Your task to perform on an android device: toggle data saver in the chrome app Image 0: 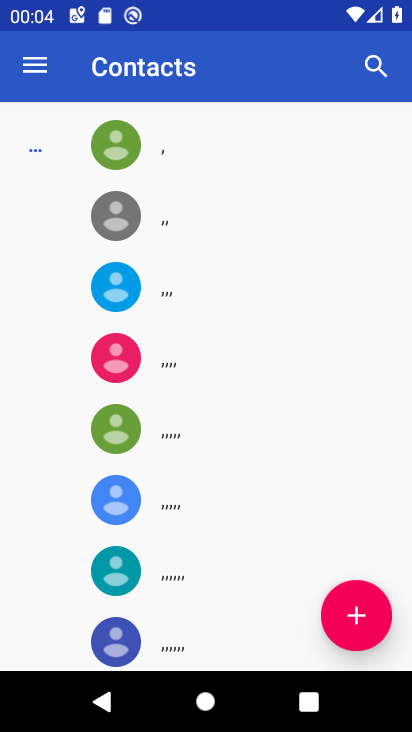
Step 0: press home button
Your task to perform on an android device: toggle data saver in the chrome app Image 1: 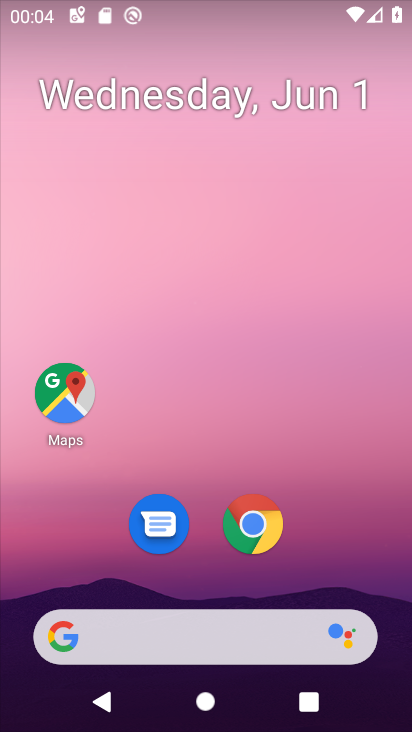
Step 1: click (261, 525)
Your task to perform on an android device: toggle data saver in the chrome app Image 2: 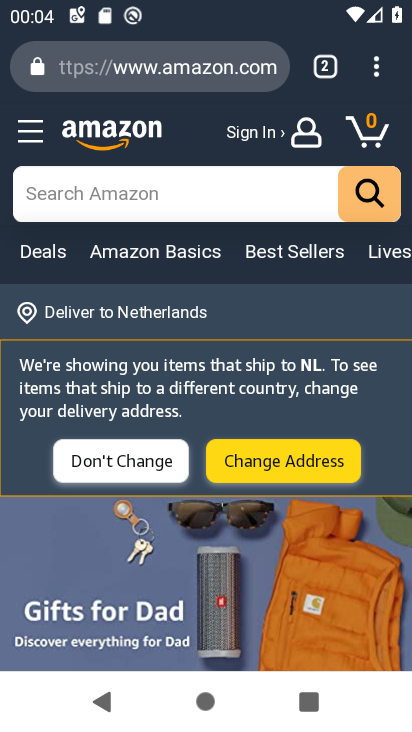
Step 2: click (381, 70)
Your task to perform on an android device: toggle data saver in the chrome app Image 3: 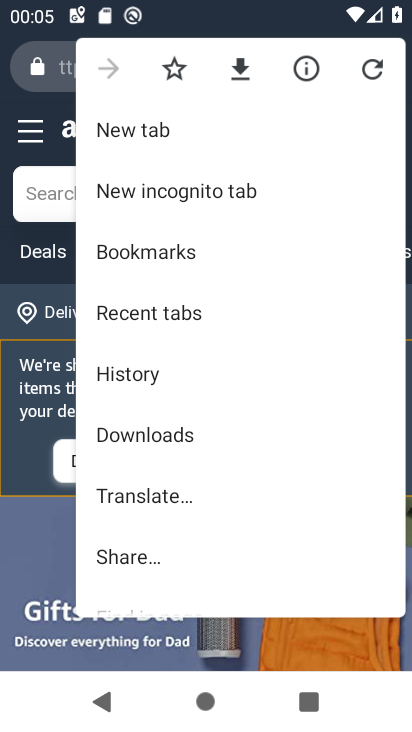
Step 3: drag from (228, 504) to (225, 151)
Your task to perform on an android device: toggle data saver in the chrome app Image 4: 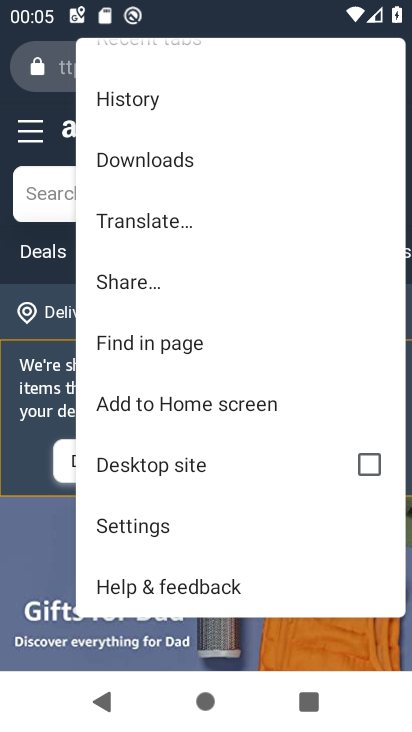
Step 4: click (182, 519)
Your task to perform on an android device: toggle data saver in the chrome app Image 5: 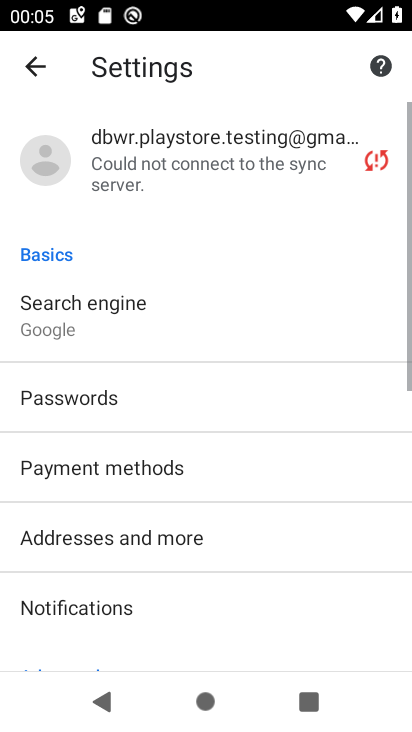
Step 5: drag from (228, 606) to (226, 217)
Your task to perform on an android device: toggle data saver in the chrome app Image 6: 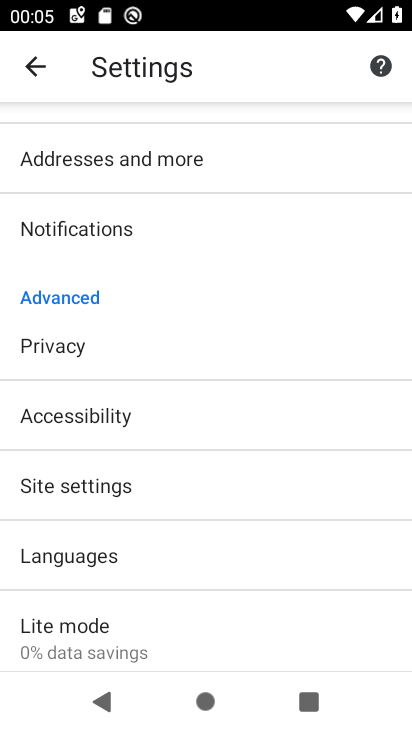
Step 6: click (158, 628)
Your task to perform on an android device: toggle data saver in the chrome app Image 7: 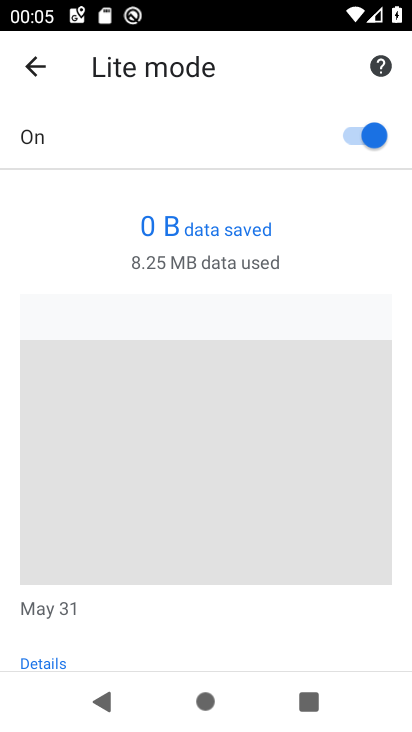
Step 7: click (349, 125)
Your task to perform on an android device: toggle data saver in the chrome app Image 8: 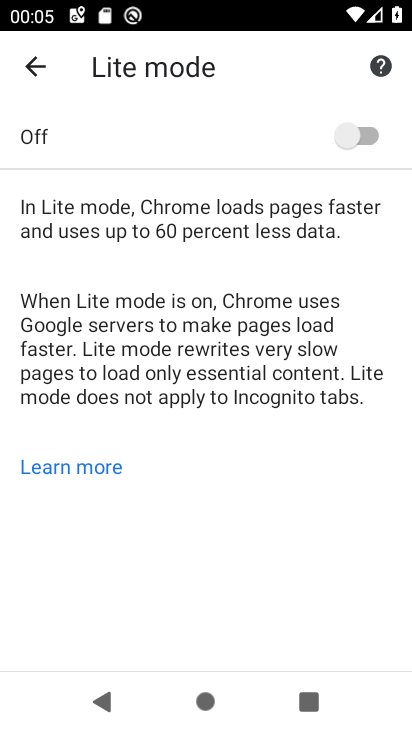
Step 8: task complete